Your task to perform on an android device: open device folders in google photos Image 0: 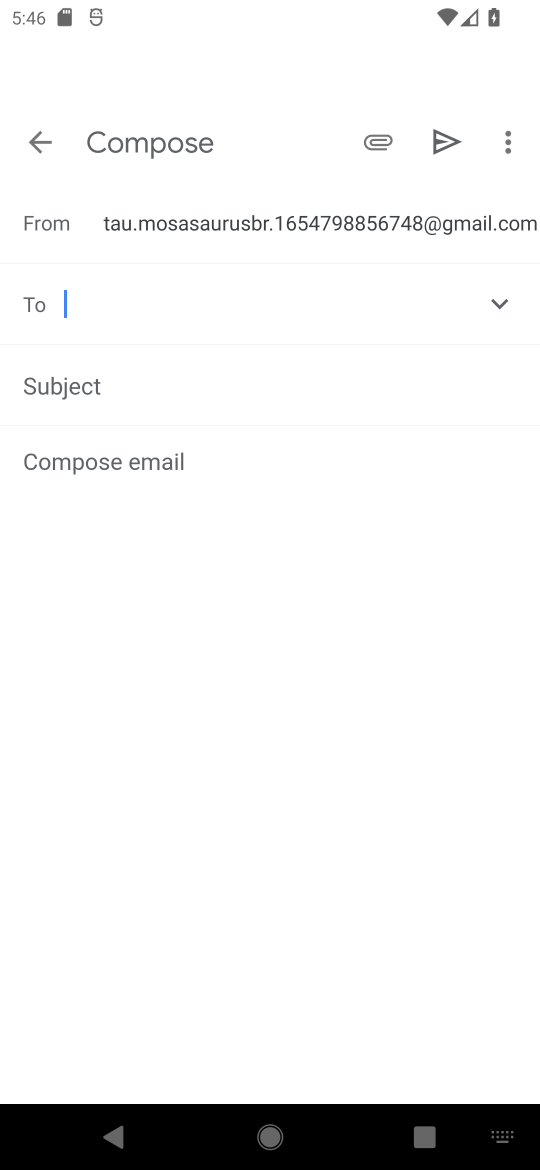
Step 0: press home button
Your task to perform on an android device: open device folders in google photos Image 1: 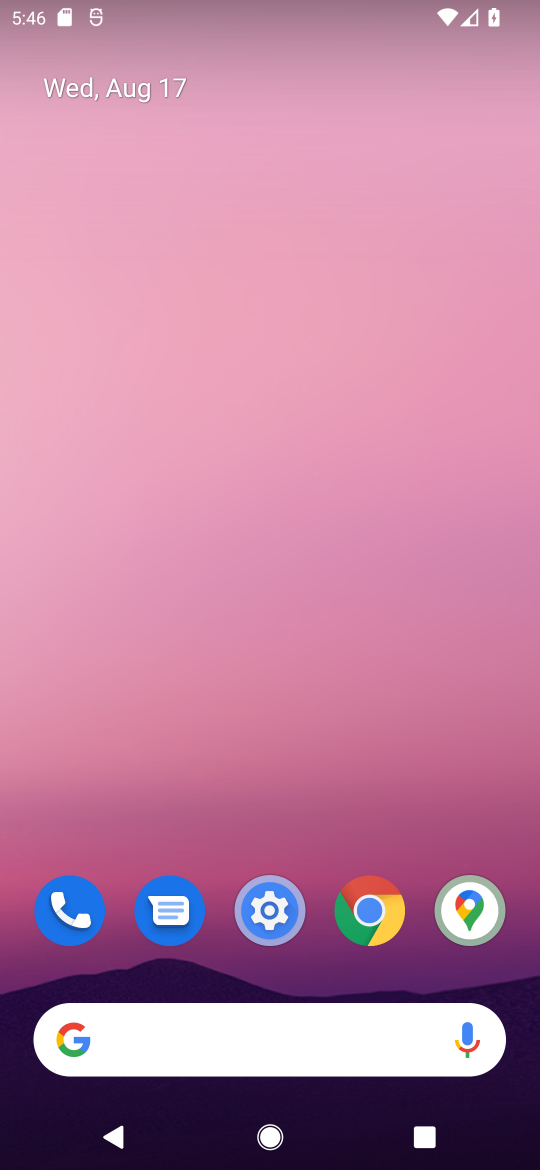
Step 1: drag from (254, 777) to (267, 222)
Your task to perform on an android device: open device folders in google photos Image 2: 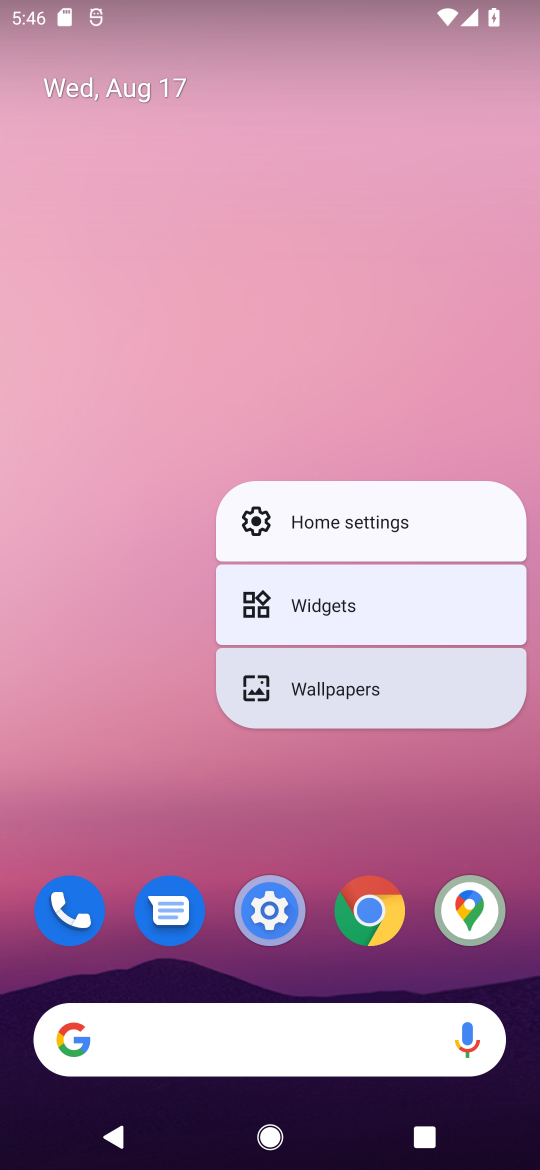
Step 2: click (145, 675)
Your task to perform on an android device: open device folders in google photos Image 3: 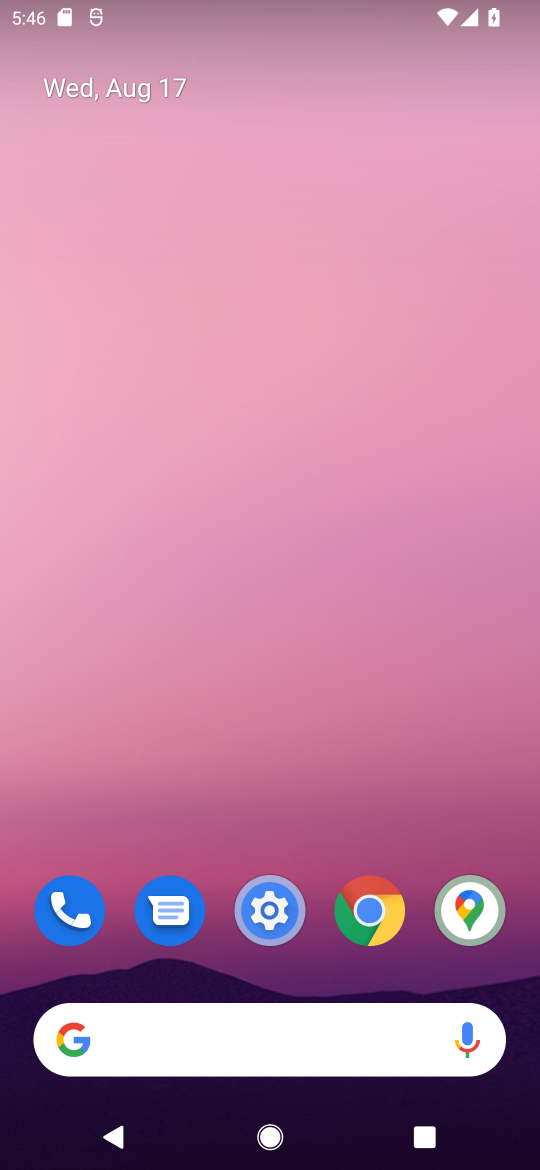
Step 3: task complete